Your task to perform on an android device: add a contact Image 0: 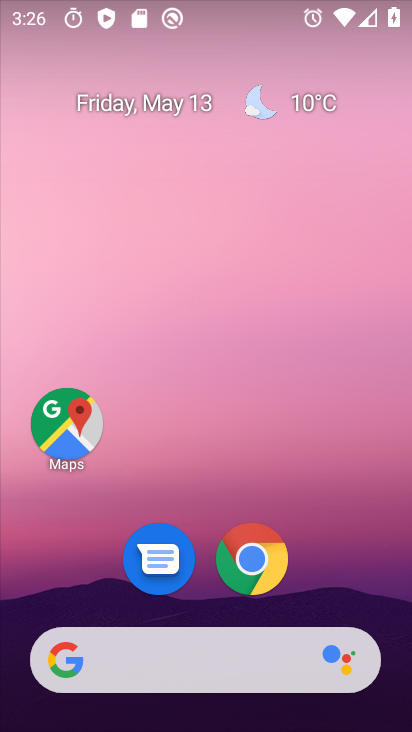
Step 0: drag from (199, 596) to (167, 182)
Your task to perform on an android device: add a contact Image 1: 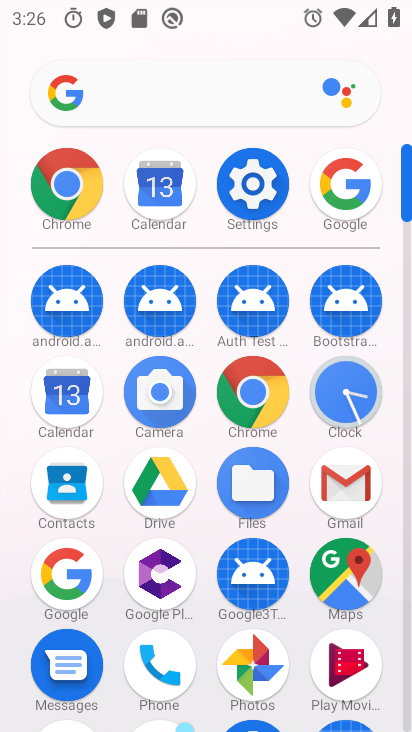
Step 1: click (48, 503)
Your task to perform on an android device: add a contact Image 2: 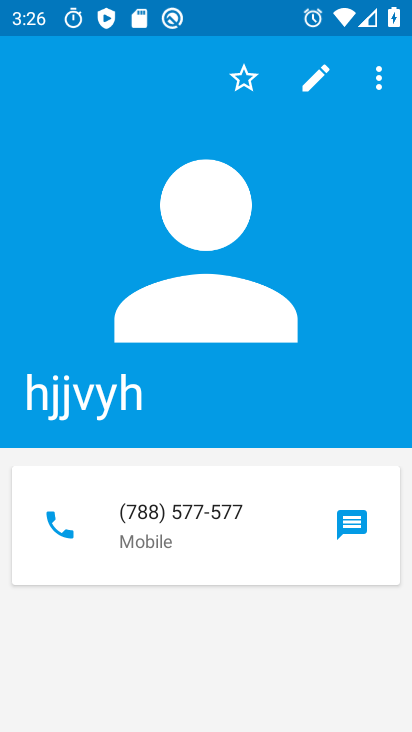
Step 2: press back button
Your task to perform on an android device: add a contact Image 3: 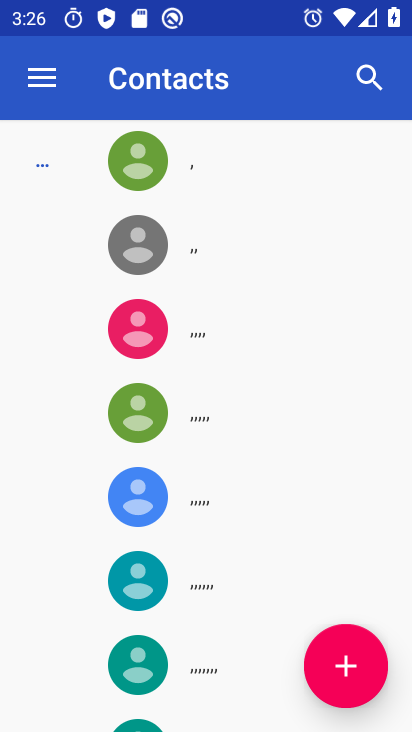
Step 3: click (350, 662)
Your task to perform on an android device: add a contact Image 4: 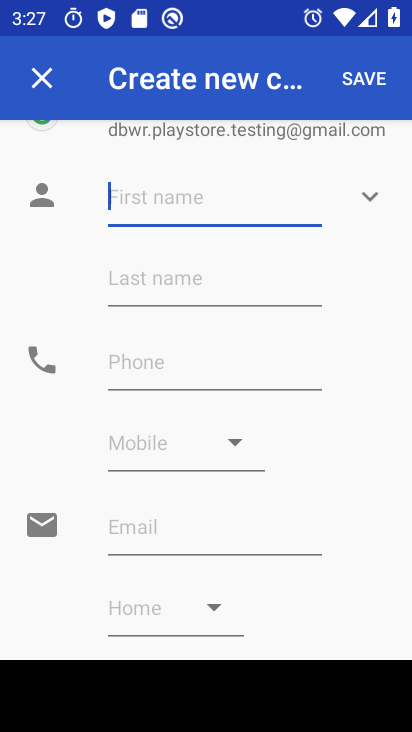
Step 4: type "jbj"
Your task to perform on an android device: add a contact Image 5: 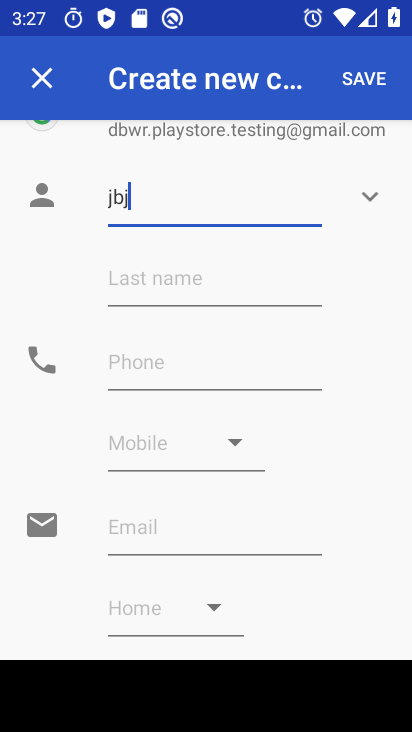
Step 5: click (129, 362)
Your task to perform on an android device: add a contact Image 6: 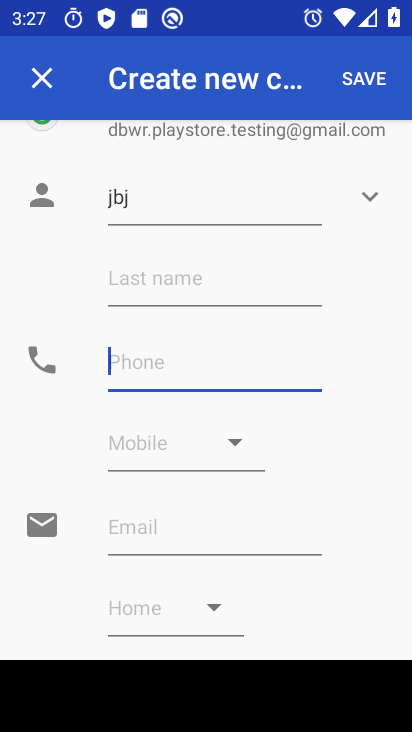
Step 6: type "6785957r87"
Your task to perform on an android device: add a contact Image 7: 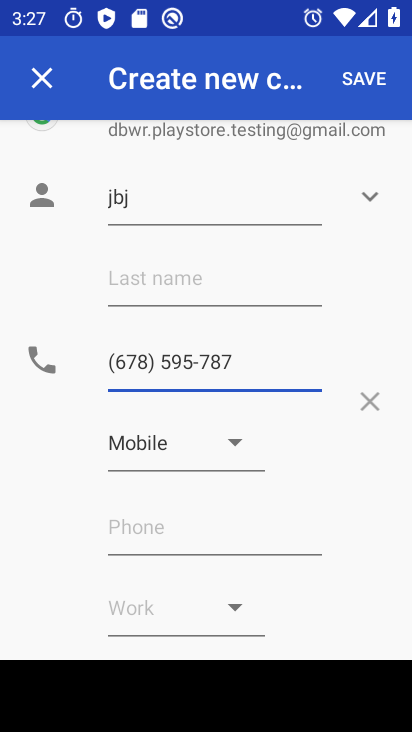
Step 7: click (383, 57)
Your task to perform on an android device: add a contact Image 8: 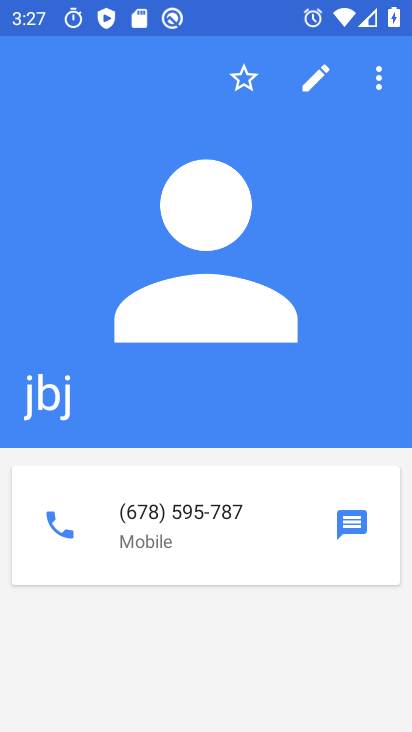
Step 8: task complete